Your task to perform on an android device: Go to settings Image 0: 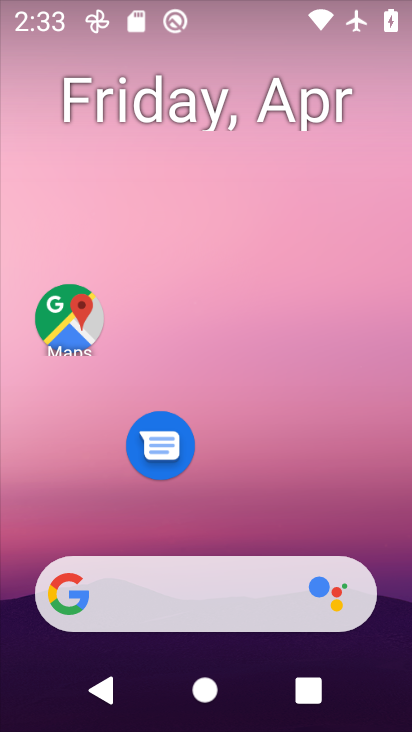
Step 0: drag from (279, 460) to (285, 91)
Your task to perform on an android device: Go to settings Image 1: 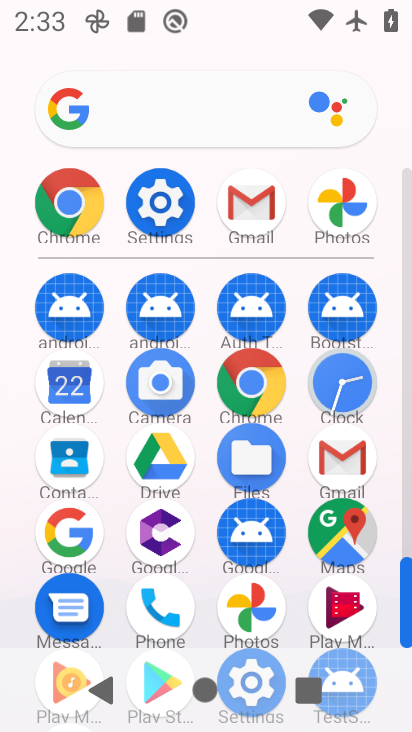
Step 1: click (176, 211)
Your task to perform on an android device: Go to settings Image 2: 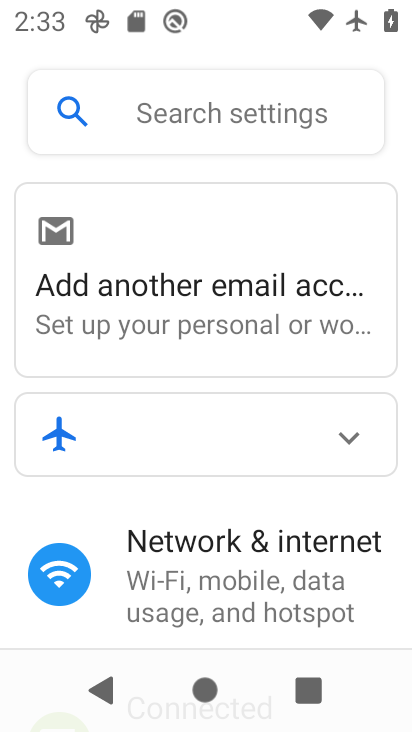
Step 2: task complete